Your task to perform on an android device: Show the shopping cart on target. Search for "razer naga" on target, select the first entry, and add it to the cart. Image 0: 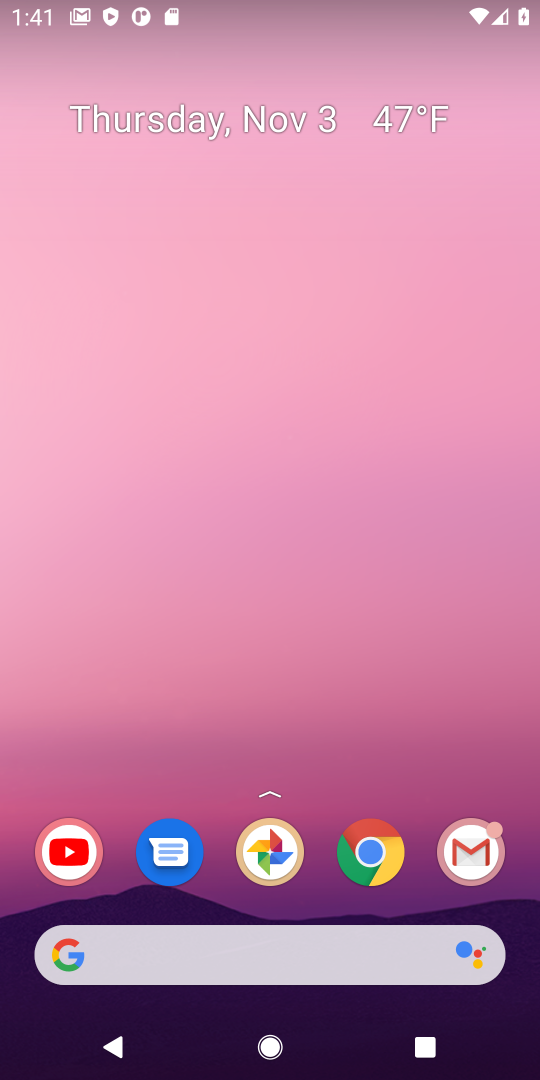
Step 0: click (375, 854)
Your task to perform on an android device: Show the shopping cart on target. Search for "razer naga" on target, select the first entry, and add it to the cart. Image 1: 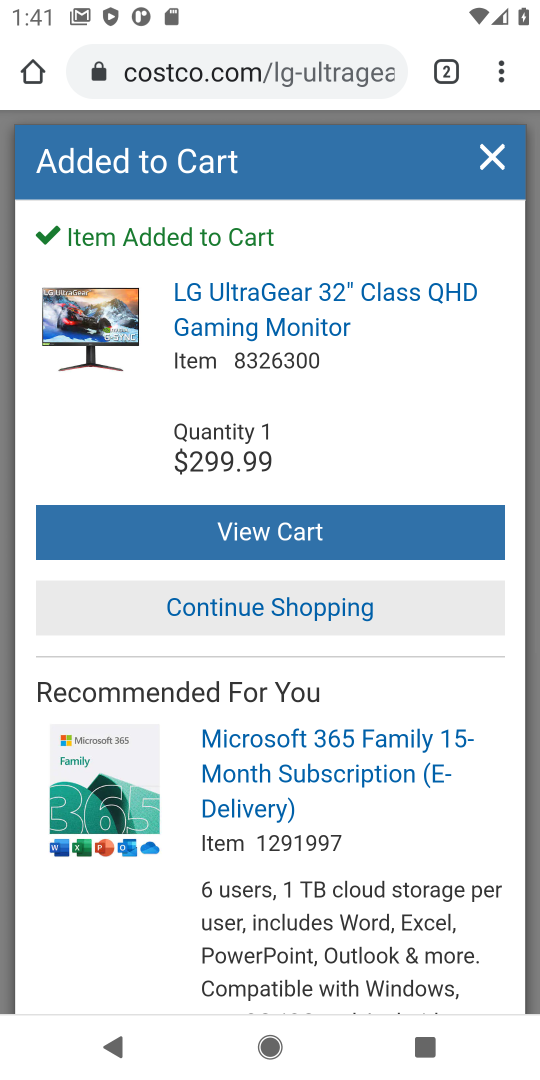
Step 1: click (255, 80)
Your task to perform on an android device: Show the shopping cart on target. Search for "razer naga" on target, select the first entry, and add it to the cart. Image 2: 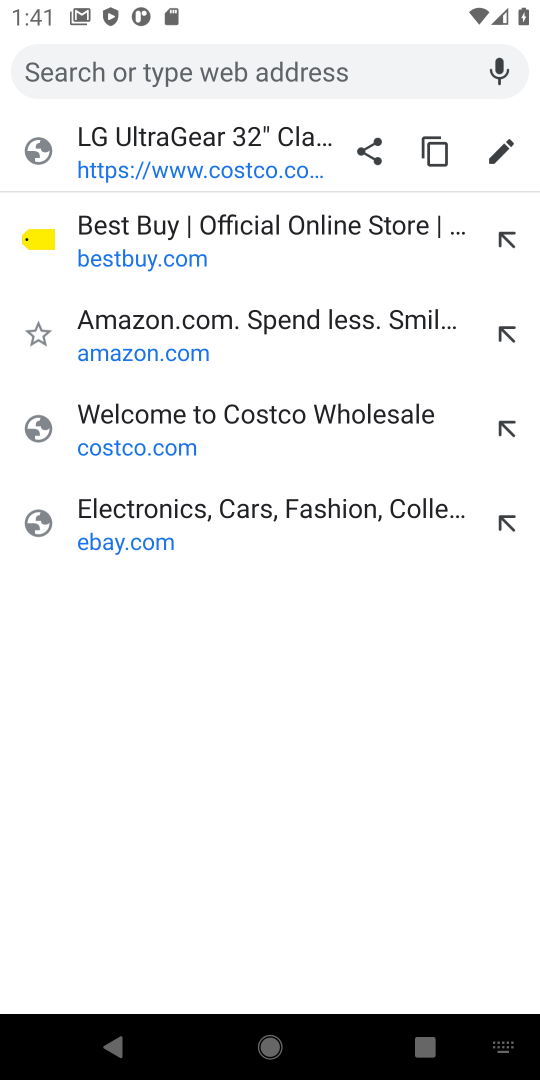
Step 2: type "target.com"
Your task to perform on an android device: Show the shopping cart on target. Search for "razer naga" on target, select the first entry, and add it to the cart. Image 3: 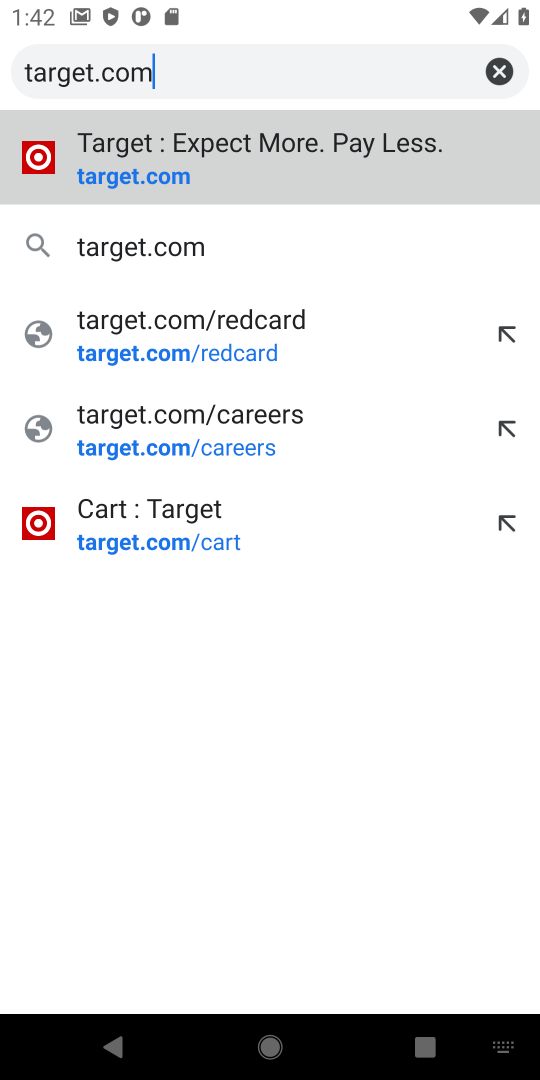
Step 3: click (123, 177)
Your task to perform on an android device: Show the shopping cart on target. Search for "razer naga" on target, select the first entry, and add it to the cart. Image 4: 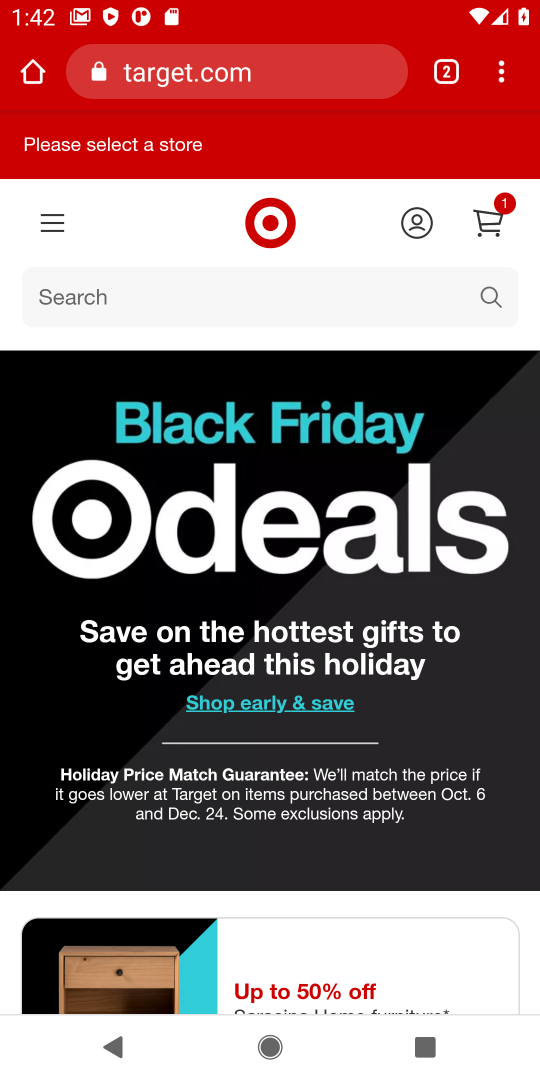
Step 4: click (485, 228)
Your task to perform on an android device: Show the shopping cart on target. Search for "razer naga" on target, select the first entry, and add it to the cart. Image 5: 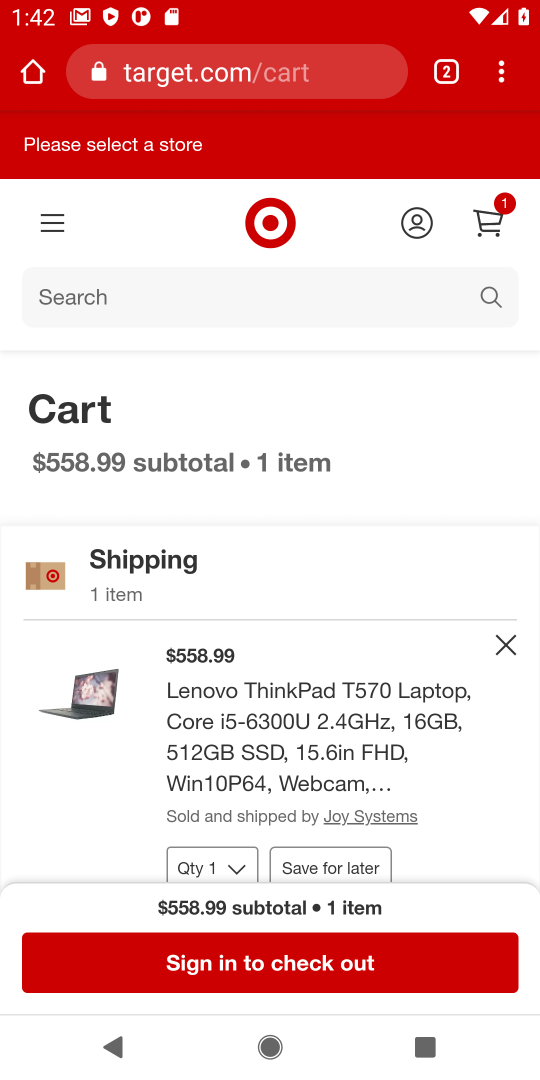
Step 5: click (401, 313)
Your task to perform on an android device: Show the shopping cart on target. Search for "razer naga" on target, select the first entry, and add it to the cart. Image 6: 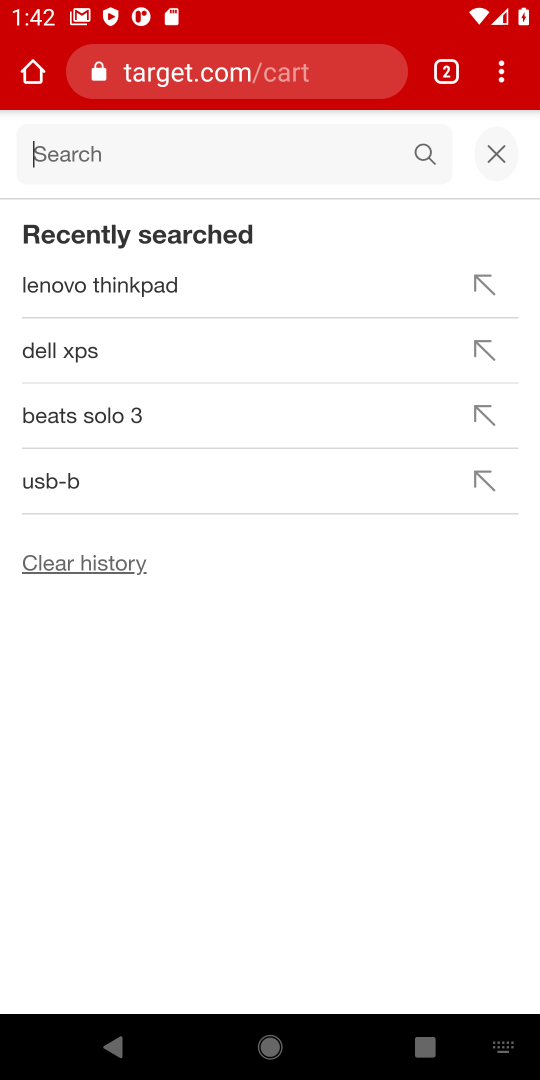
Step 6: type "razer naga"
Your task to perform on an android device: Show the shopping cart on target. Search for "razer naga" on target, select the first entry, and add it to the cart. Image 7: 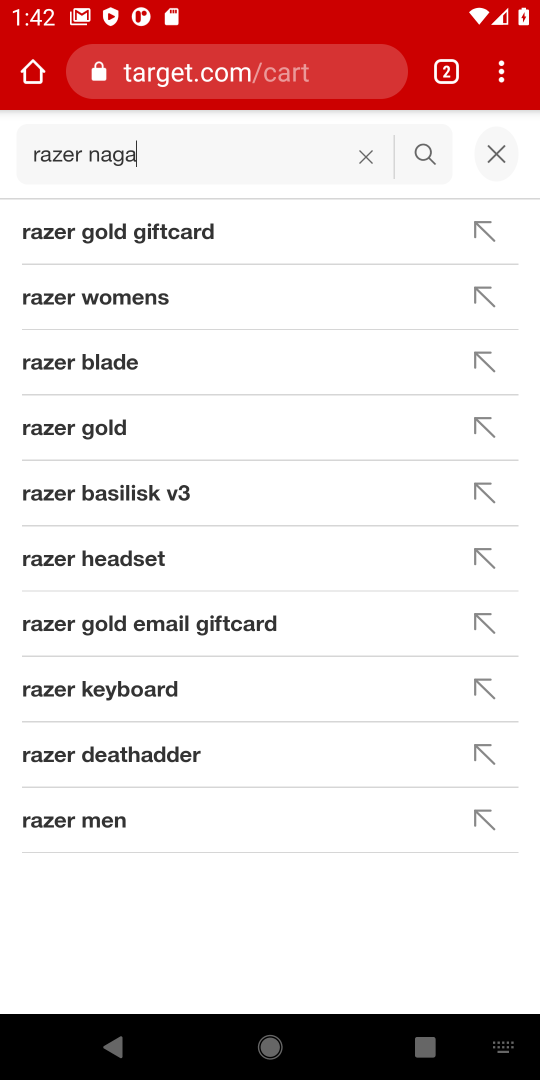
Step 7: click (420, 161)
Your task to perform on an android device: Show the shopping cart on target. Search for "razer naga" on target, select the first entry, and add it to the cart. Image 8: 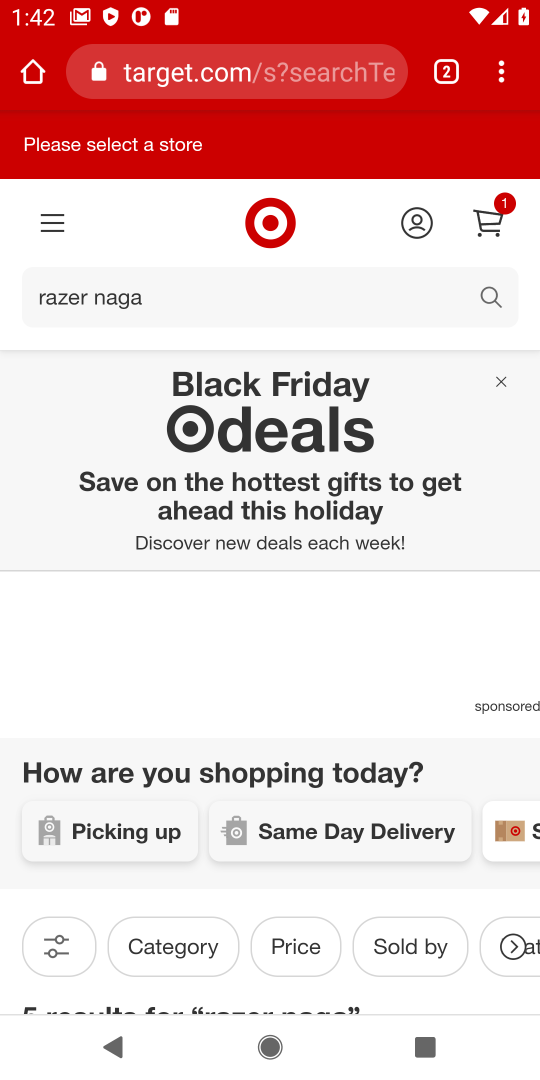
Step 8: task complete